Your task to perform on an android device: Open wifi settings Image 0: 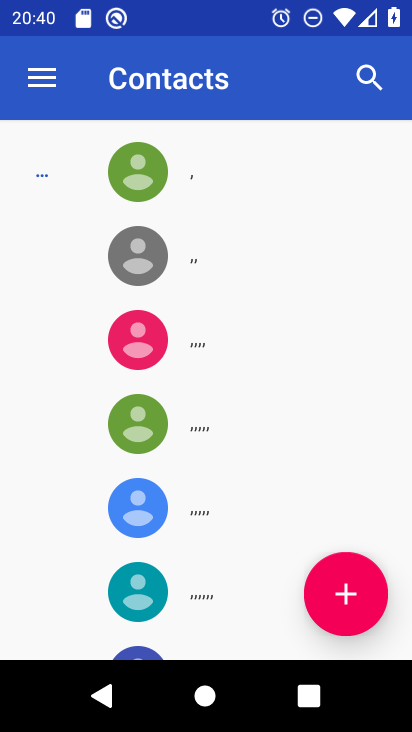
Step 0: press home button
Your task to perform on an android device: Open wifi settings Image 1: 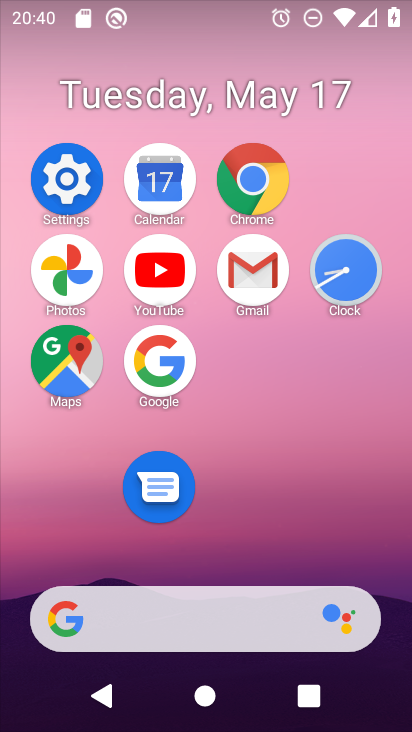
Step 1: click (83, 185)
Your task to perform on an android device: Open wifi settings Image 2: 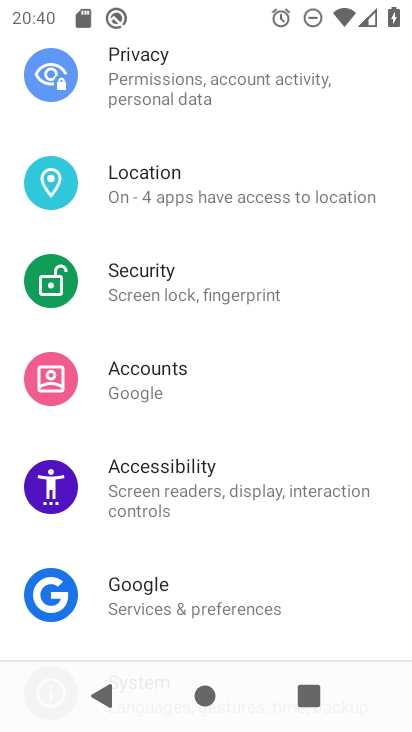
Step 2: drag from (266, 183) to (269, 653)
Your task to perform on an android device: Open wifi settings Image 3: 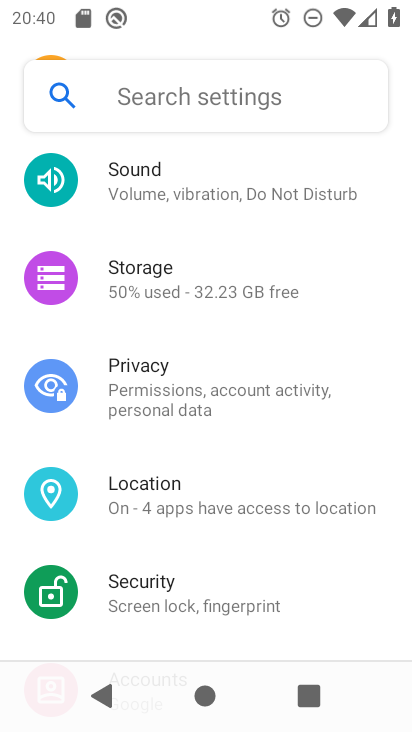
Step 3: drag from (280, 228) to (340, 620)
Your task to perform on an android device: Open wifi settings Image 4: 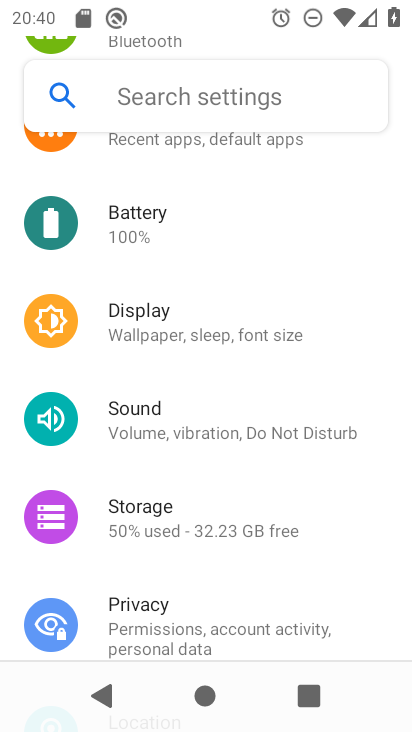
Step 4: drag from (360, 514) to (404, 714)
Your task to perform on an android device: Open wifi settings Image 5: 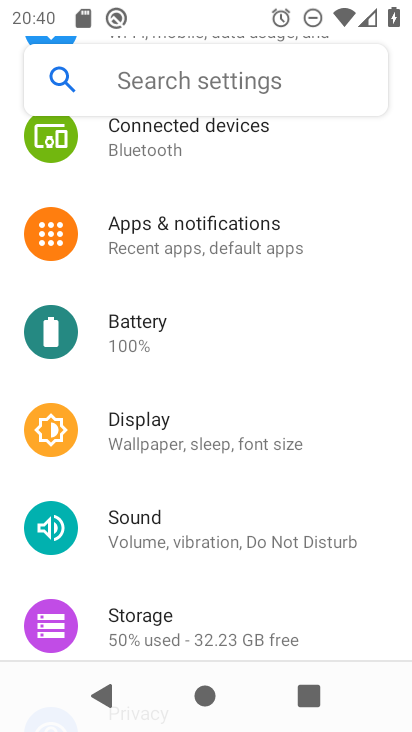
Step 5: drag from (291, 194) to (298, 667)
Your task to perform on an android device: Open wifi settings Image 6: 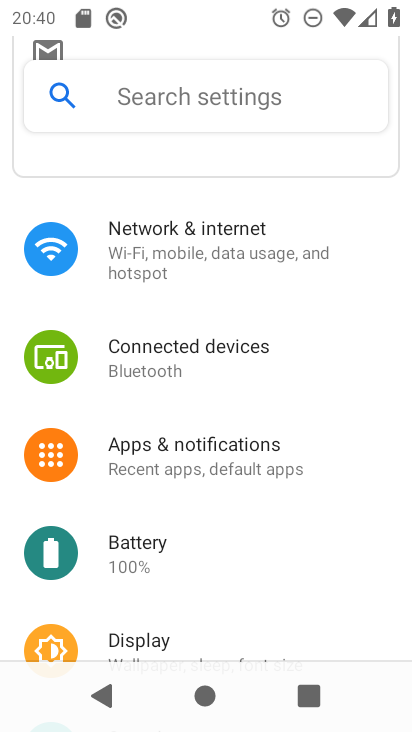
Step 6: click (256, 273)
Your task to perform on an android device: Open wifi settings Image 7: 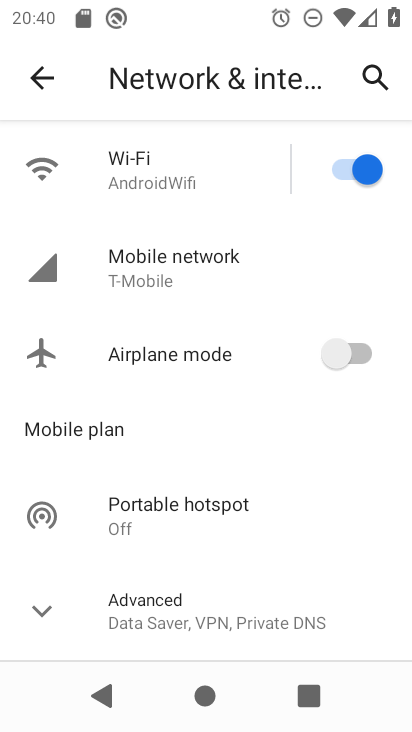
Step 7: click (240, 161)
Your task to perform on an android device: Open wifi settings Image 8: 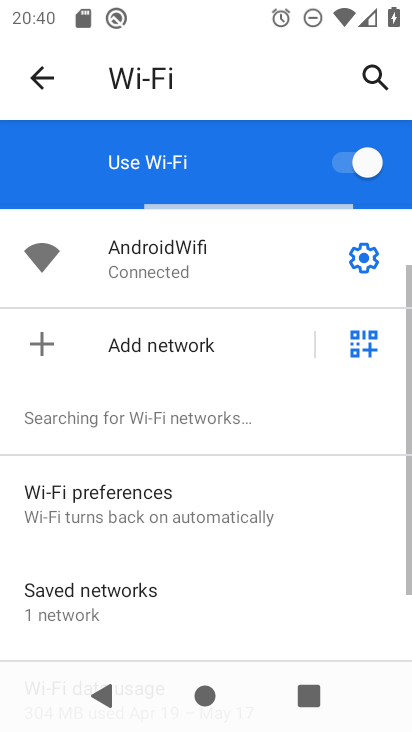
Step 8: click (375, 251)
Your task to perform on an android device: Open wifi settings Image 9: 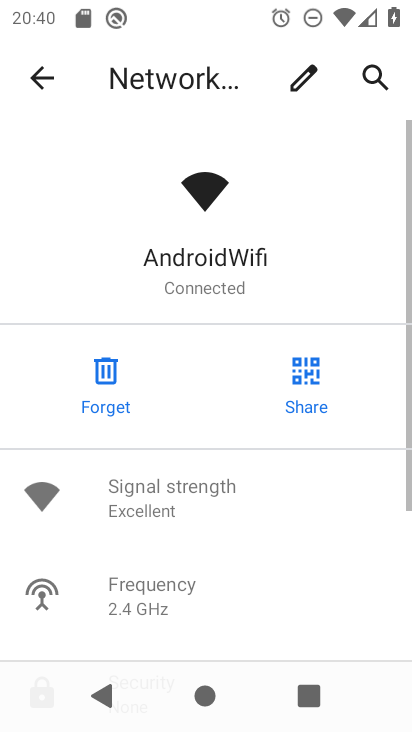
Step 9: task complete